Your task to perform on an android device: turn on airplane mode Image 0: 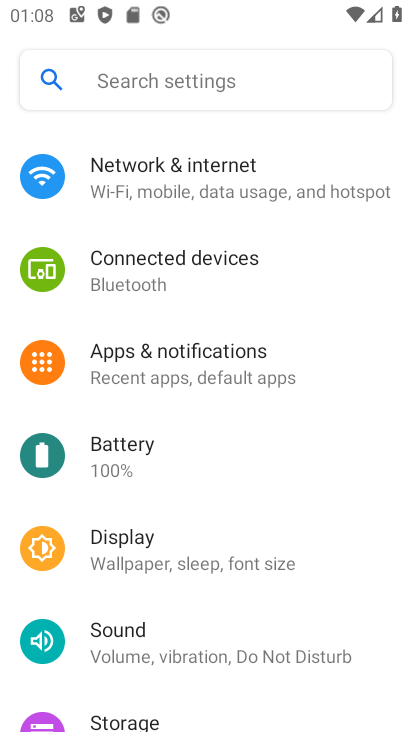
Step 0: press home button
Your task to perform on an android device: turn on airplane mode Image 1: 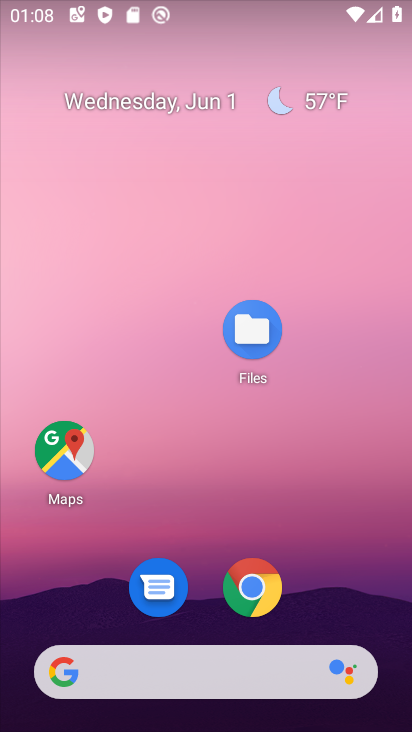
Step 1: drag from (337, 6) to (409, 434)
Your task to perform on an android device: turn on airplane mode Image 2: 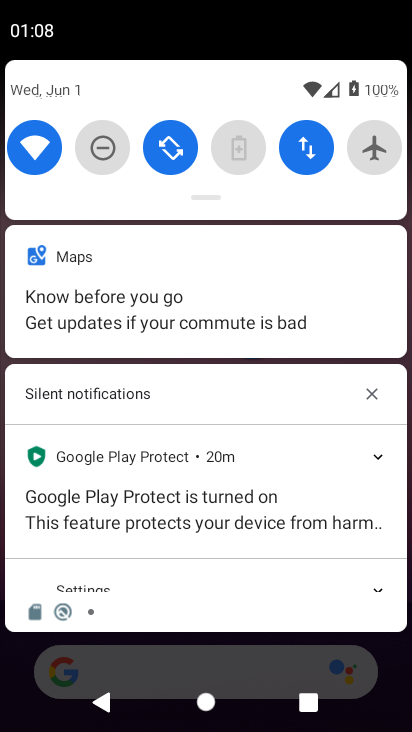
Step 2: click (373, 147)
Your task to perform on an android device: turn on airplane mode Image 3: 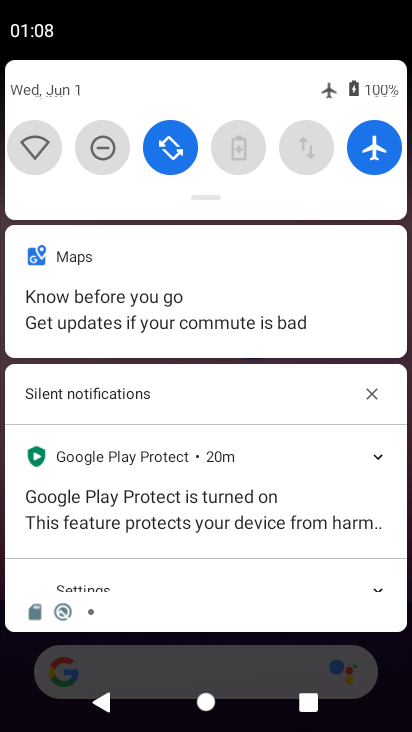
Step 3: task complete